Your task to perform on an android device: open chrome and create a bookmark for the current page Image 0: 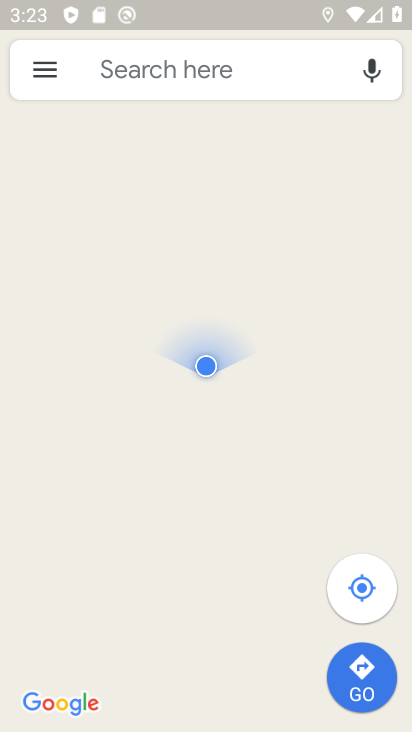
Step 0: press home button
Your task to perform on an android device: open chrome and create a bookmark for the current page Image 1: 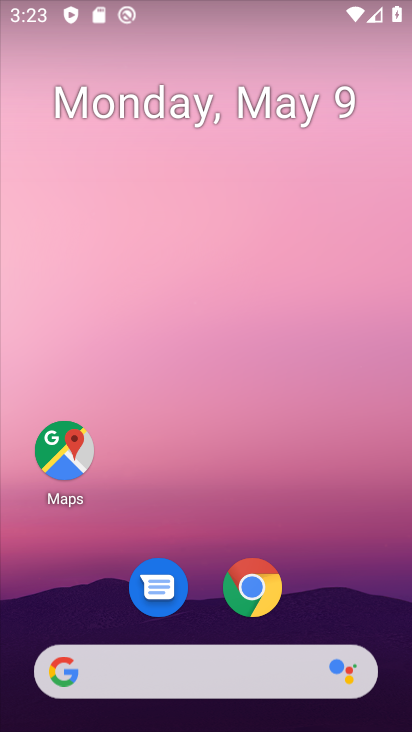
Step 1: click (245, 584)
Your task to perform on an android device: open chrome and create a bookmark for the current page Image 2: 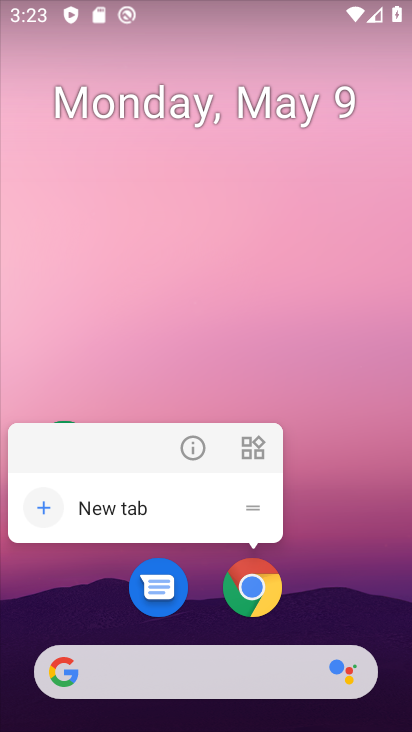
Step 2: click (253, 585)
Your task to perform on an android device: open chrome and create a bookmark for the current page Image 3: 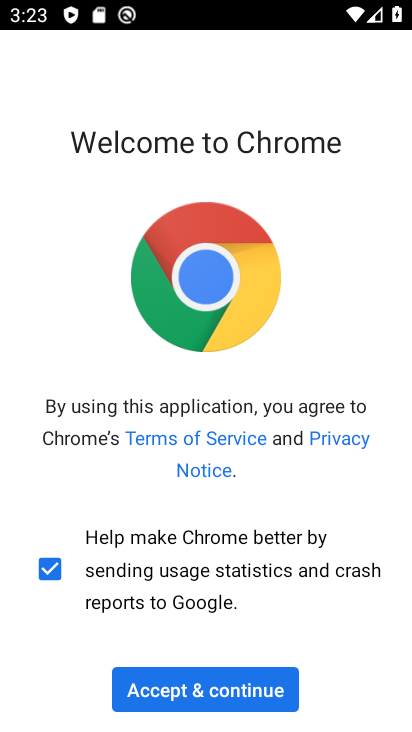
Step 3: click (155, 702)
Your task to perform on an android device: open chrome and create a bookmark for the current page Image 4: 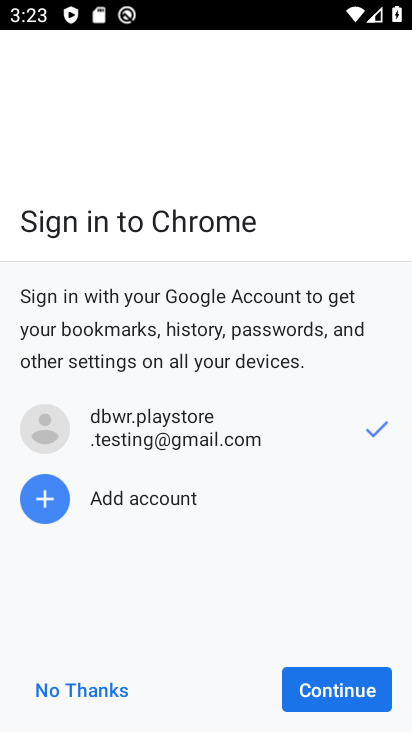
Step 4: click (344, 673)
Your task to perform on an android device: open chrome and create a bookmark for the current page Image 5: 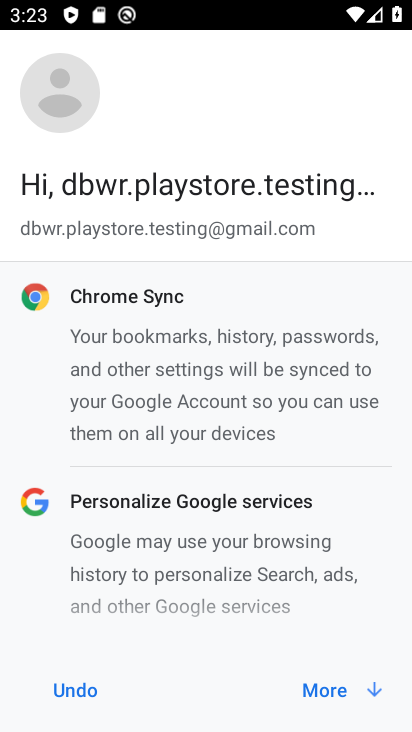
Step 5: click (320, 692)
Your task to perform on an android device: open chrome and create a bookmark for the current page Image 6: 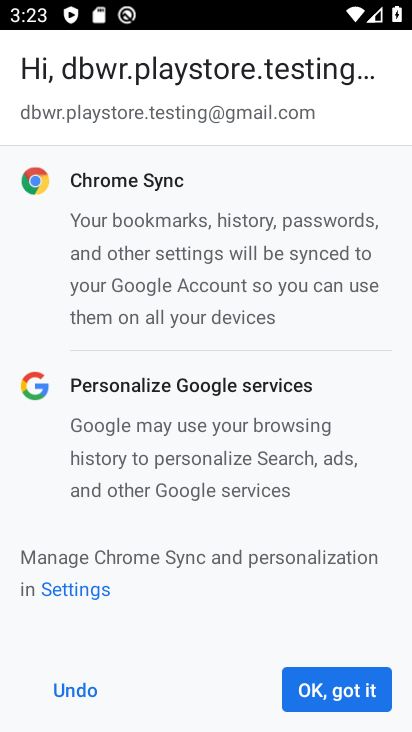
Step 6: click (320, 692)
Your task to perform on an android device: open chrome and create a bookmark for the current page Image 7: 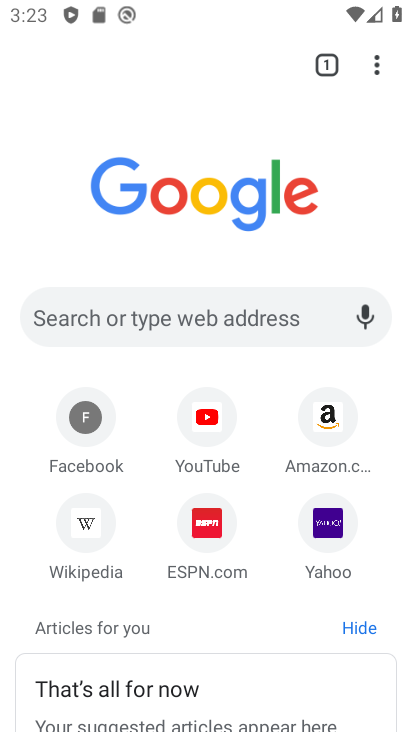
Step 7: click (227, 323)
Your task to perform on an android device: open chrome and create a bookmark for the current page Image 8: 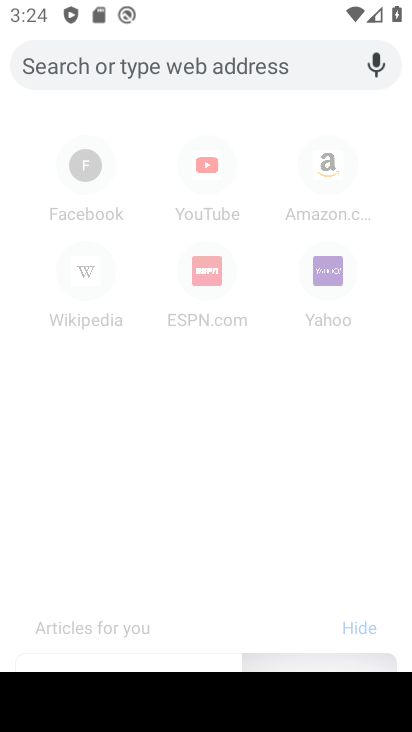
Step 8: type "www.indiagovt.com"
Your task to perform on an android device: open chrome and create a bookmark for the current page Image 9: 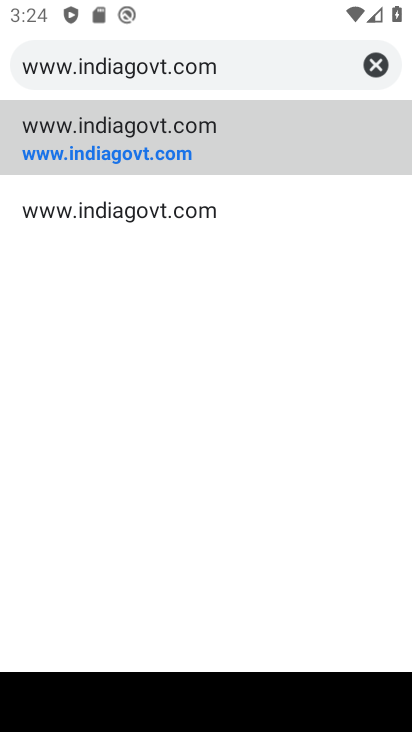
Step 9: click (118, 144)
Your task to perform on an android device: open chrome and create a bookmark for the current page Image 10: 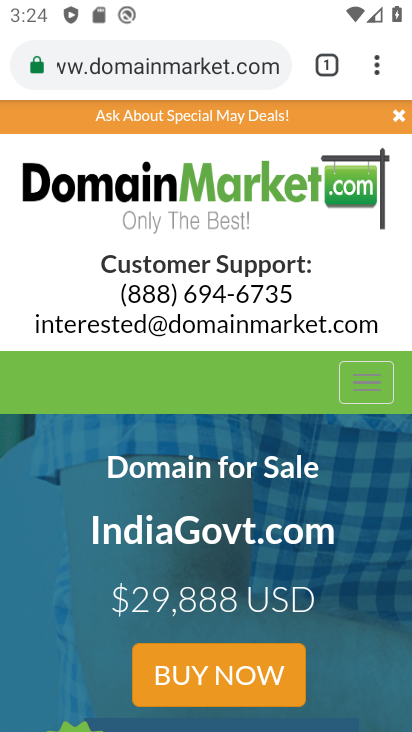
Step 10: click (375, 66)
Your task to perform on an android device: open chrome and create a bookmark for the current page Image 11: 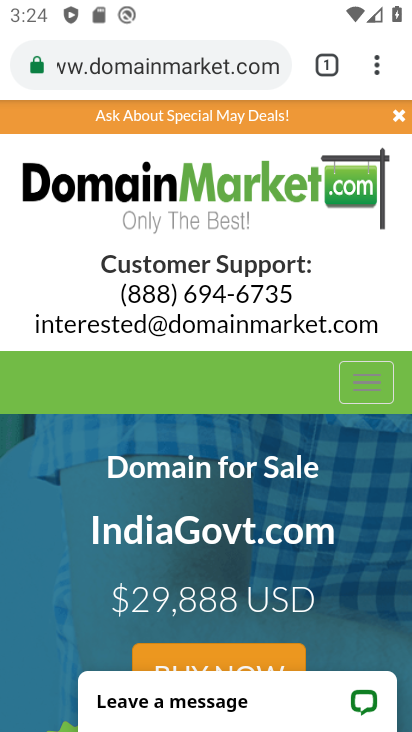
Step 11: click (379, 62)
Your task to perform on an android device: open chrome and create a bookmark for the current page Image 12: 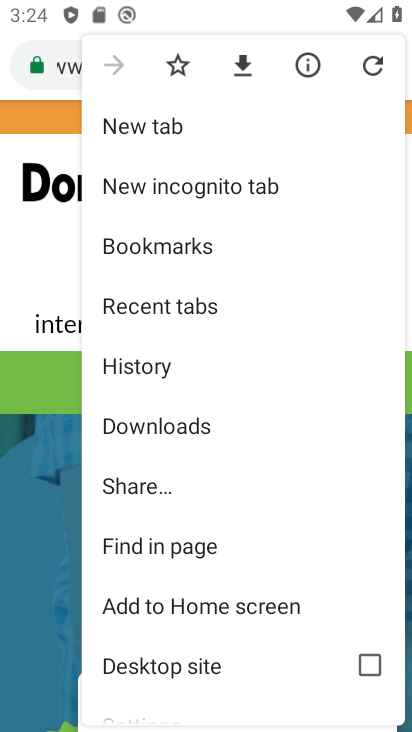
Step 12: click (183, 63)
Your task to perform on an android device: open chrome and create a bookmark for the current page Image 13: 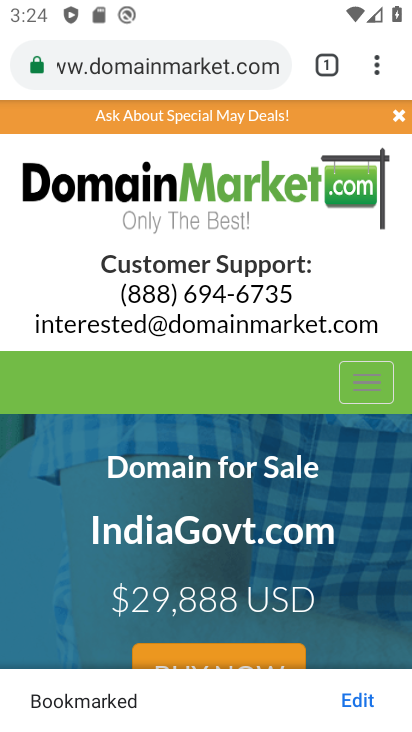
Step 13: task complete